Your task to perform on an android device: set the stopwatch Image 0: 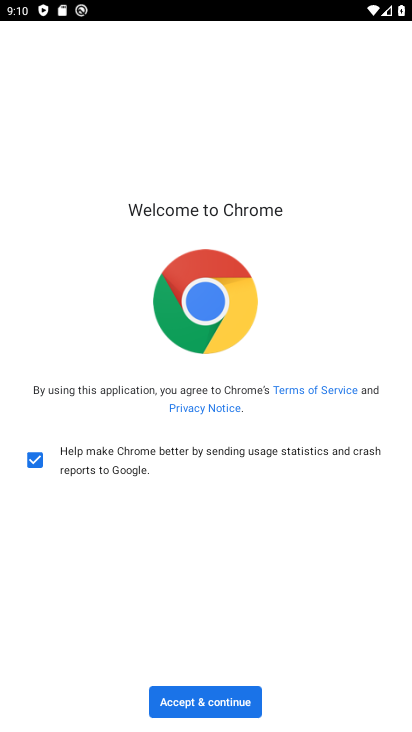
Step 0: press home button
Your task to perform on an android device: set the stopwatch Image 1: 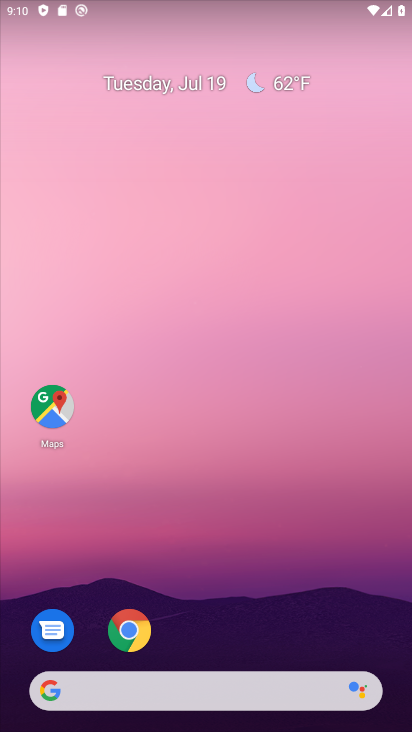
Step 1: drag from (246, 669) to (236, 145)
Your task to perform on an android device: set the stopwatch Image 2: 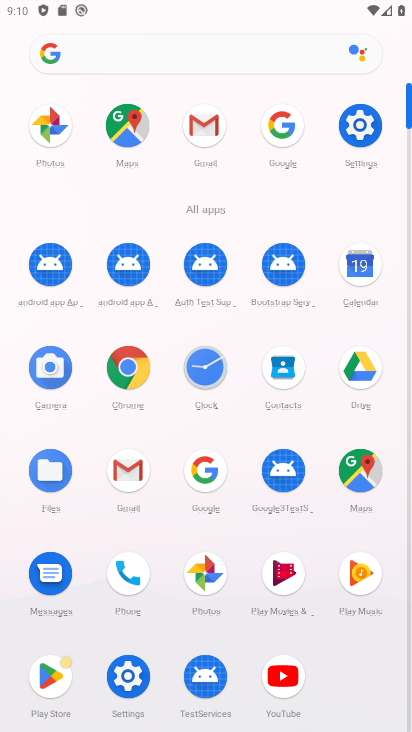
Step 2: click (204, 378)
Your task to perform on an android device: set the stopwatch Image 3: 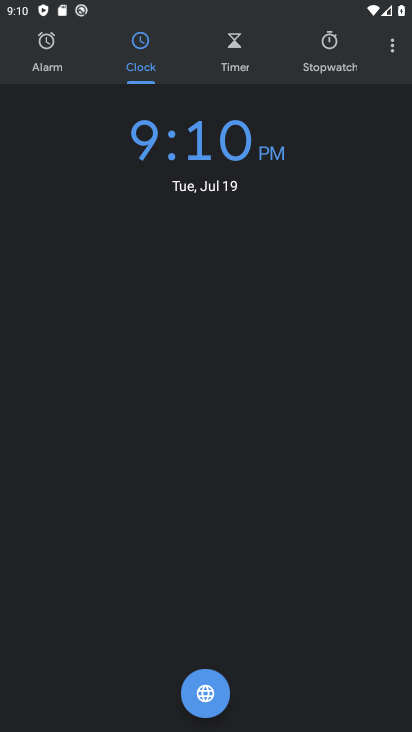
Step 3: click (313, 64)
Your task to perform on an android device: set the stopwatch Image 4: 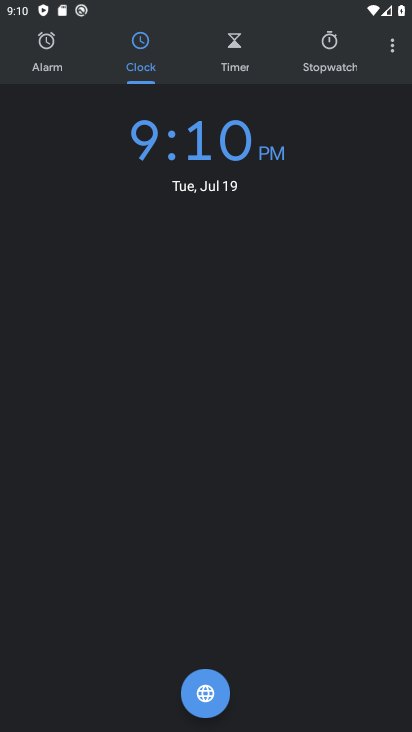
Step 4: click (330, 44)
Your task to perform on an android device: set the stopwatch Image 5: 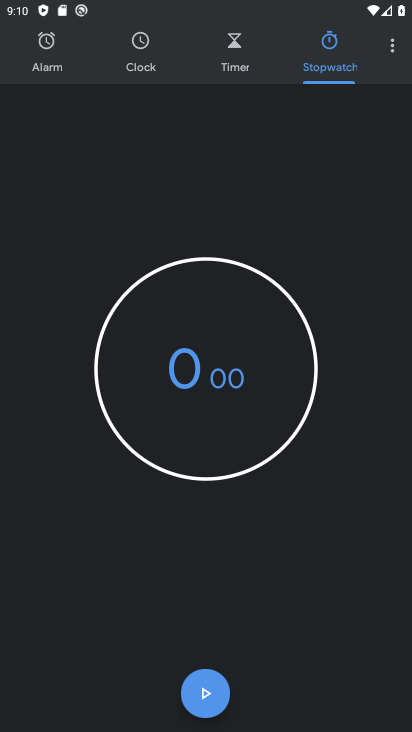
Step 5: click (198, 693)
Your task to perform on an android device: set the stopwatch Image 6: 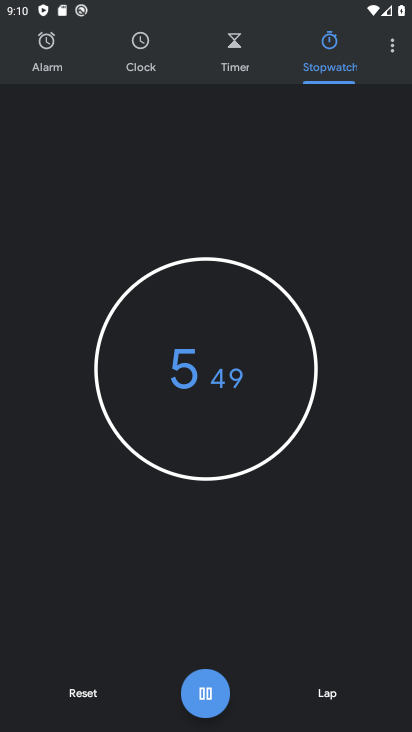
Step 6: click (205, 698)
Your task to perform on an android device: set the stopwatch Image 7: 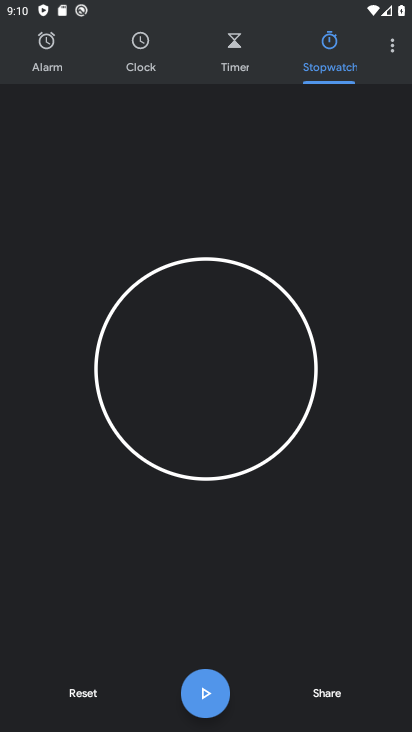
Step 7: task complete